Your task to perform on an android device: Open Chrome and go to settings Image 0: 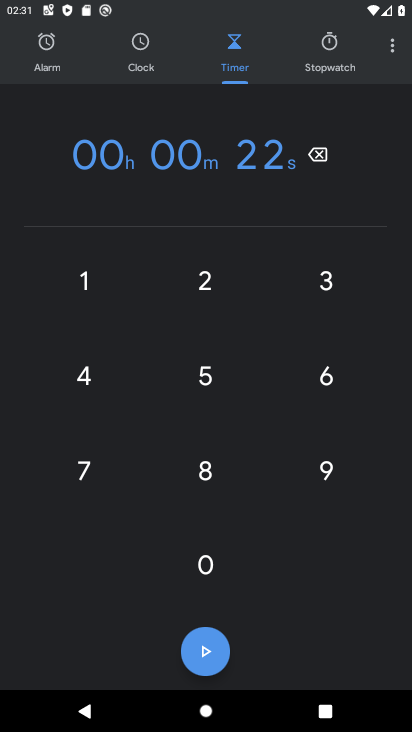
Step 0: press home button
Your task to perform on an android device: Open Chrome and go to settings Image 1: 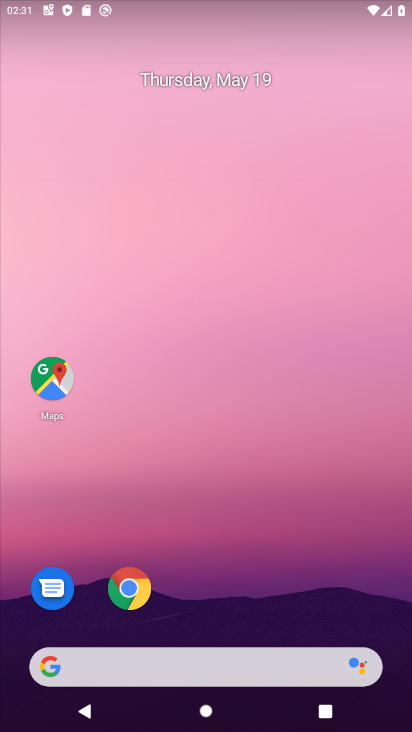
Step 1: click (131, 590)
Your task to perform on an android device: Open Chrome and go to settings Image 2: 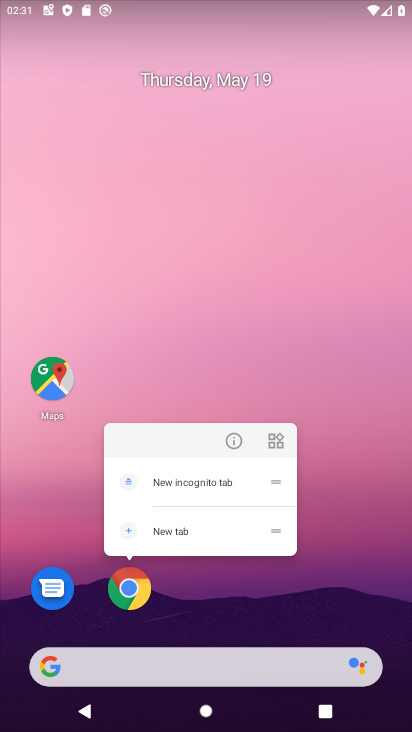
Step 2: click (129, 583)
Your task to perform on an android device: Open Chrome and go to settings Image 3: 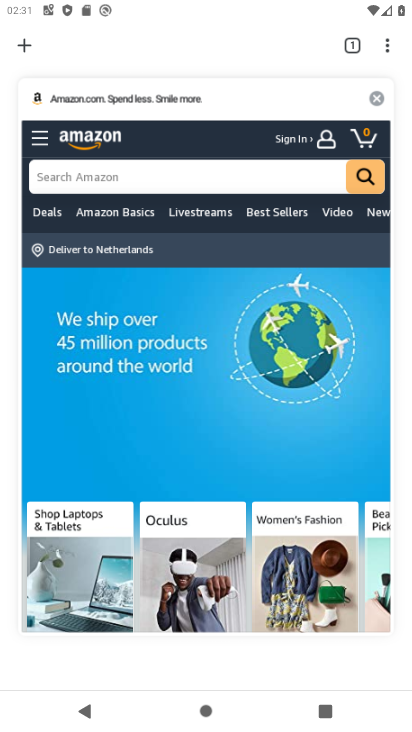
Step 3: press back button
Your task to perform on an android device: Open Chrome and go to settings Image 4: 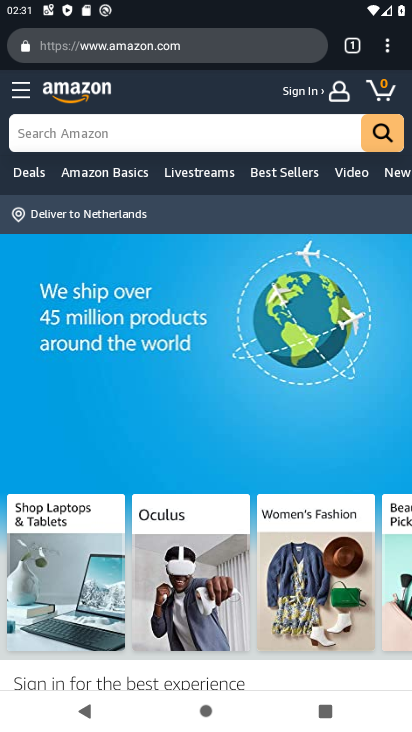
Step 4: click (381, 46)
Your task to perform on an android device: Open Chrome and go to settings Image 5: 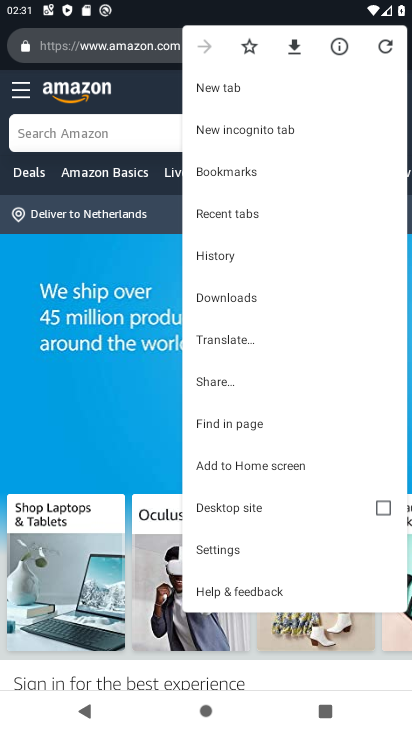
Step 5: click (218, 550)
Your task to perform on an android device: Open Chrome and go to settings Image 6: 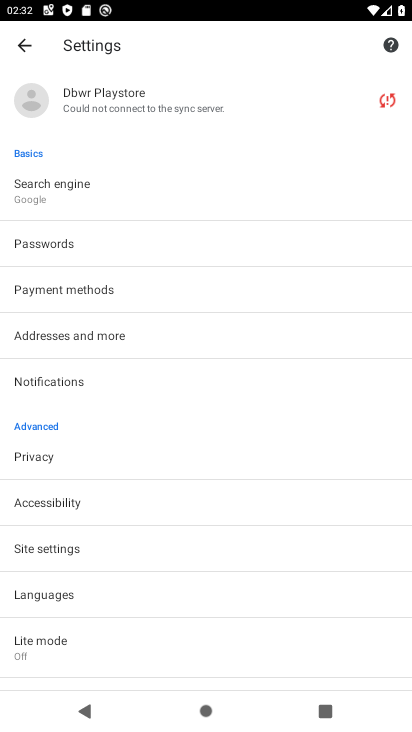
Step 6: task complete